Your task to perform on an android device: Toggle the flashlight Image 0: 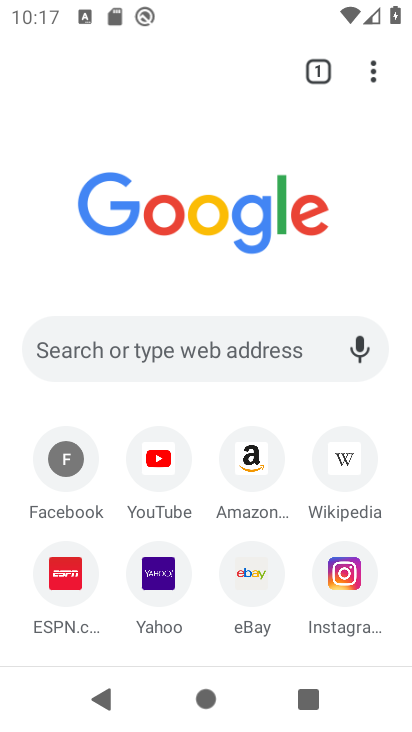
Step 0: press home button
Your task to perform on an android device: Toggle the flashlight Image 1: 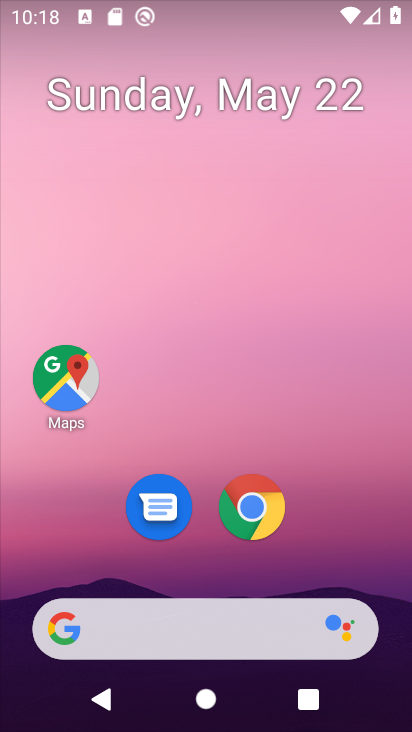
Step 1: drag from (276, 194) to (269, 18)
Your task to perform on an android device: Toggle the flashlight Image 2: 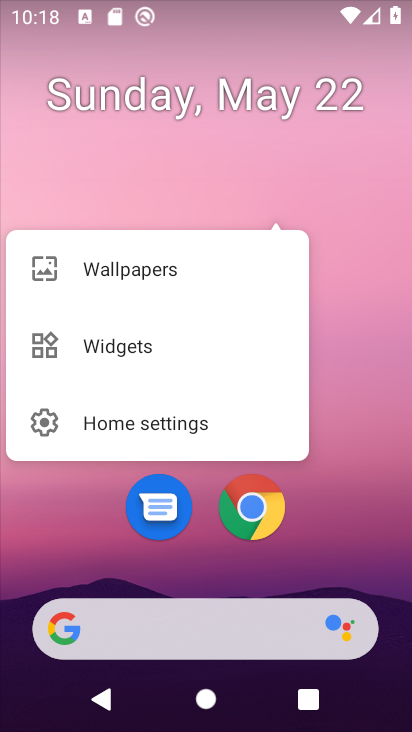
Step 2: drag from (209, 584) to (199, 35)
Your task to perform on an android device: Toggle the flashlight Image 3: 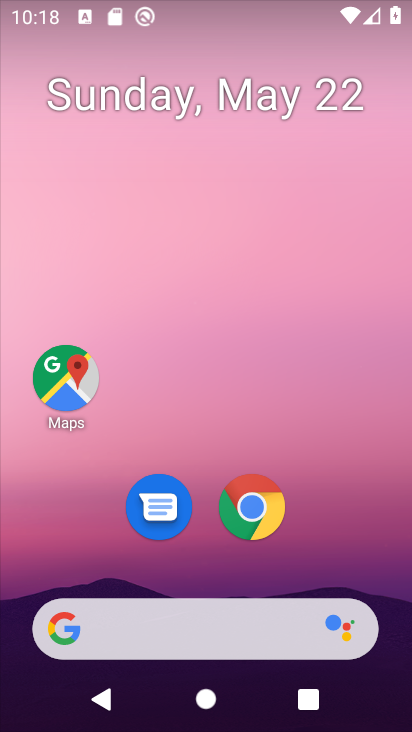
Step 3: click (198, 543)
Your task to perform on an android device: Toggle the flashlight Image 4: 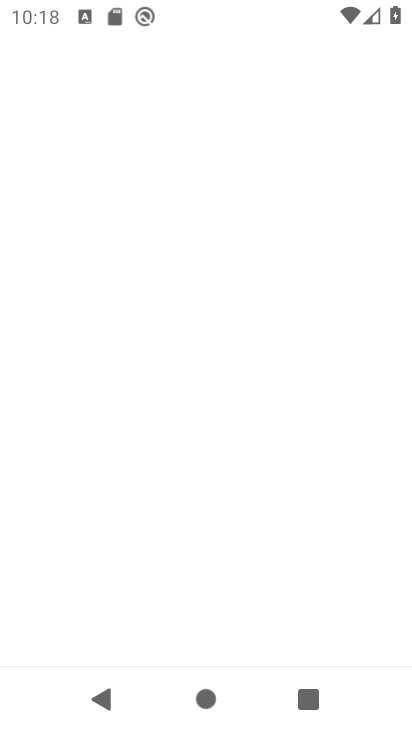
Step 4: drag from (230, 592) to (281, 23)
Your task to perform on an android device: Toggle the flashlight Image 5: 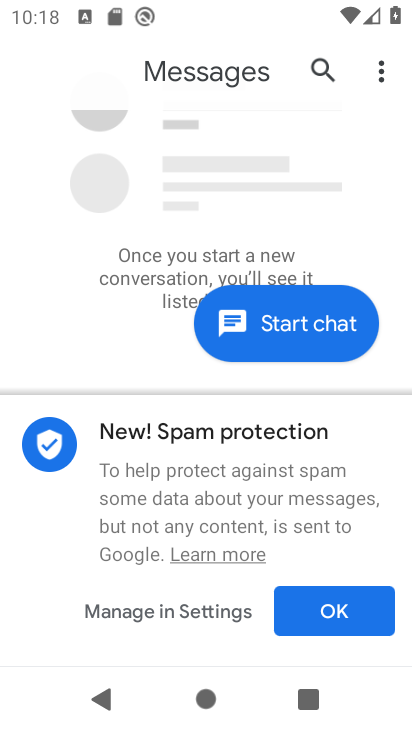
Step 5: press home button
Your task to perform on an android device: Toggle the flashlight Image 6: 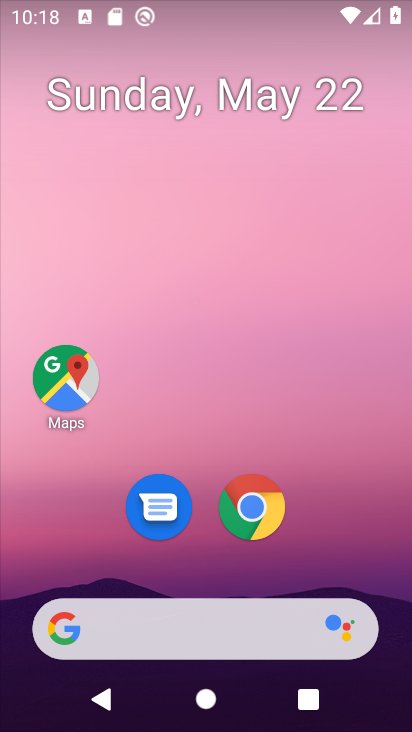
Step 6: drag from (201, 553) to (213, 18)
Your task to perform on an android device: Toggle the flashlight Image 7: 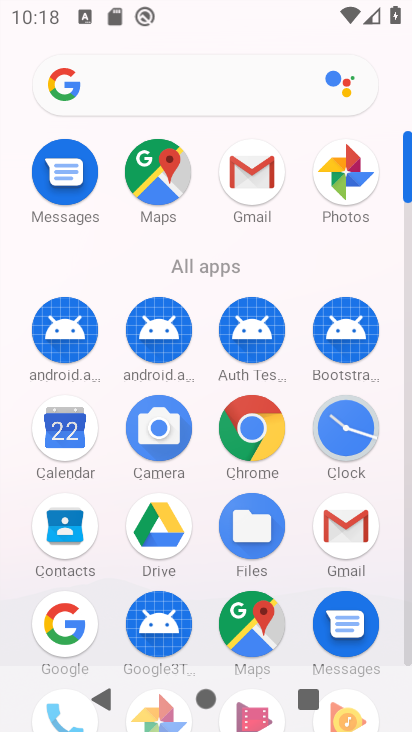
Step 7: drag from (194, 573) to (264, 142)
Your task to perform on an android device: Toggle the flashlight Image 8: 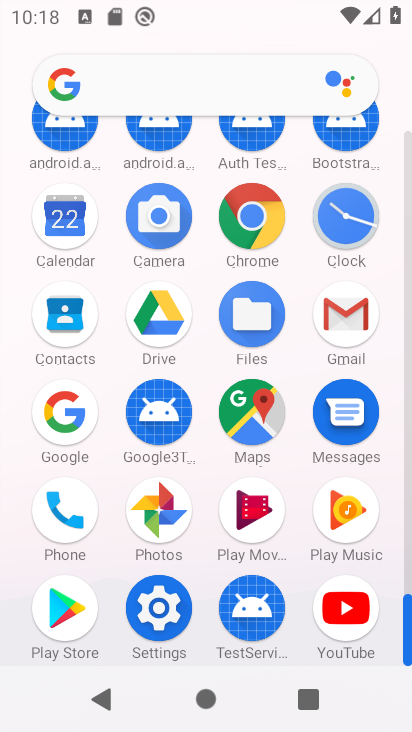
Step 8: drag from (195, 654) to (180, 149)
Your task to perform on an android device: Toggle the flashlight Image 9: 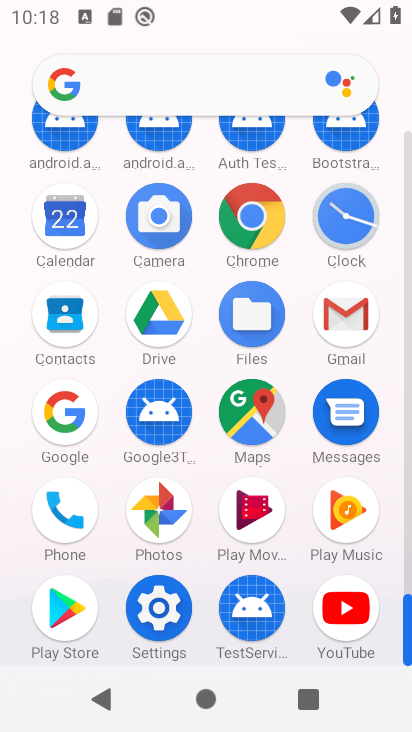
Step 9: click (144, 588)
Your task to perform on an android device: Toggle the flashlight Image 10: 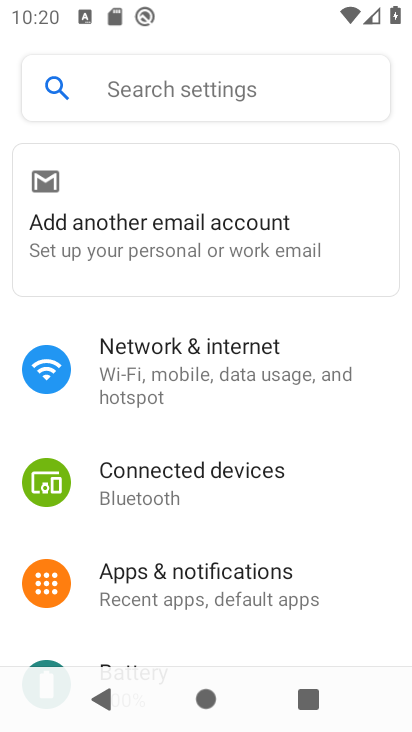
Step 10: task complete